Your task to perform on an android device: turn off data saver in the chrome app Image 0: 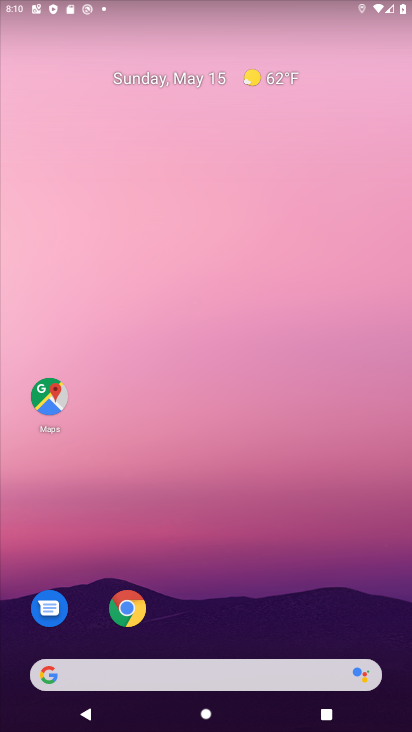
Step 0: drag from (300, 594) to (157, 147)
Your task to perform on an android device: turn off data saver in the chrome app Image 1: 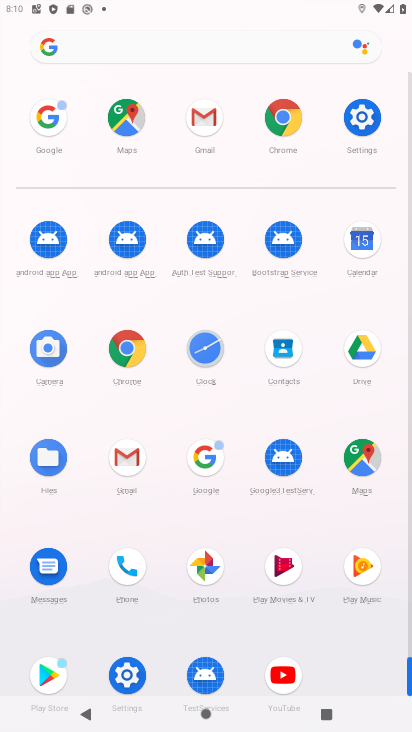
Step 1: click (279, 117)
Your task to perform on an android device: turn off data saver in the chrome app Image 2: 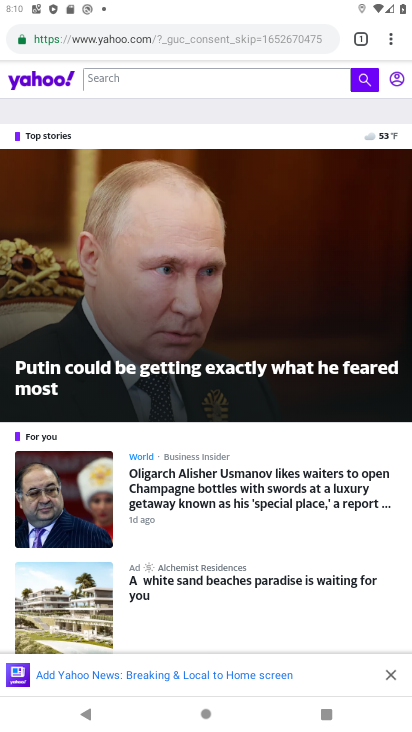
Step 2: drag from (394, 36) to (249, 480)
Your task to perform on an android device: turn off data saver in the chrome app Image 3: 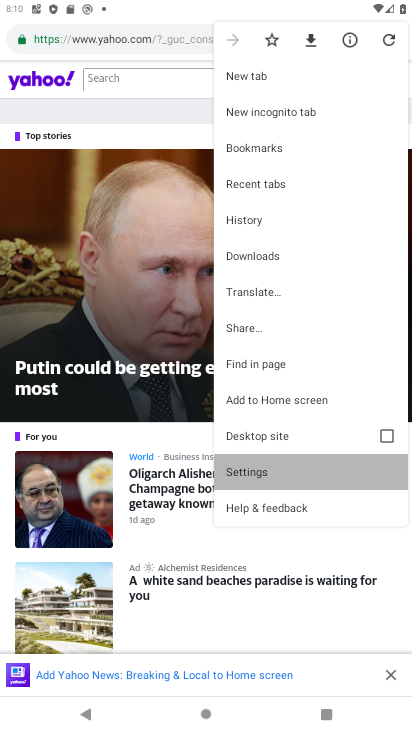
Step 3: click (249, 480)
Your task to perform on an android device: turn off data saver in the chrome app Image 4: 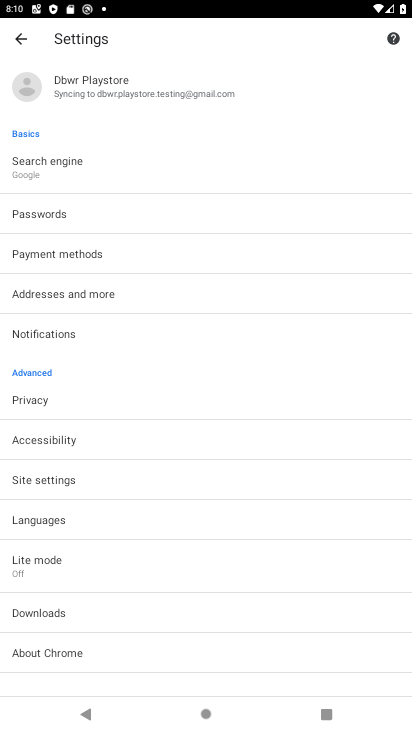
Step 4: click (59, 474)
Your task to perform on an android device: turn off data saver in the chrome app Image 5: 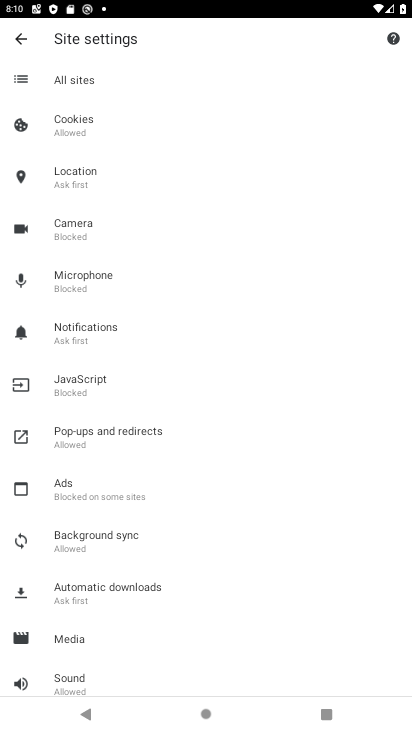
Step 5: click (15, 39)
Your task to perform on an android device: turn off data saver in the chrome app Image 6: 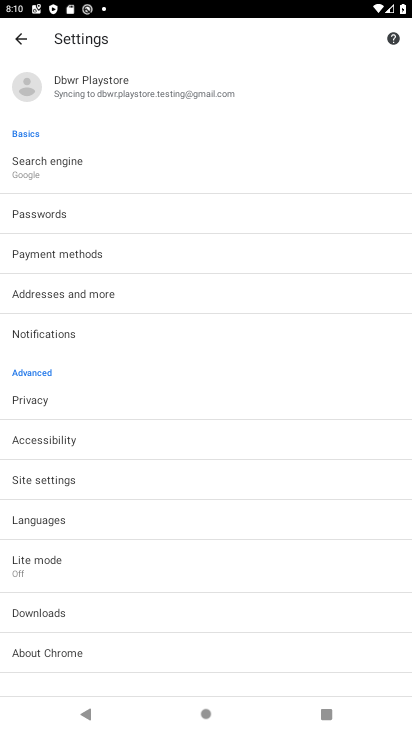
Step 6: click (43, 560)
Your task to perform on an android device: turn off data saver in the chrome app Image 7: 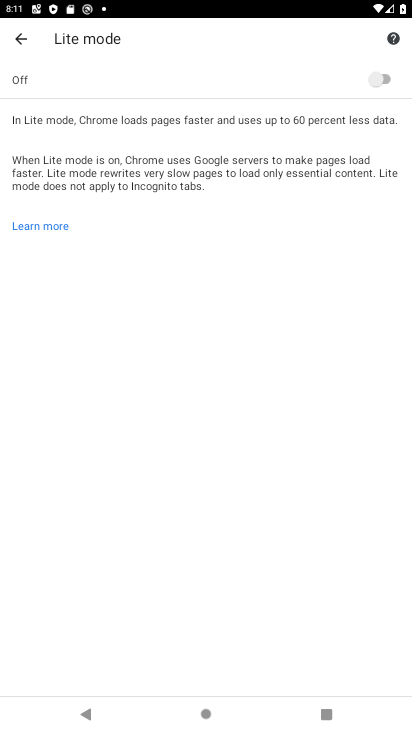
Step 7: task complete